Your task to perform on an android device: change the clock display to analog Image 0: 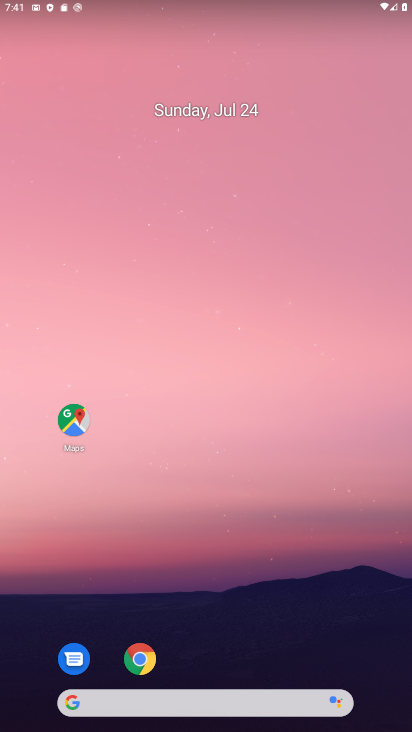
Step 0: drag from (311, 719) to (253, 177)
Your task to perform on an android device: change the clock display to analog Image 1: 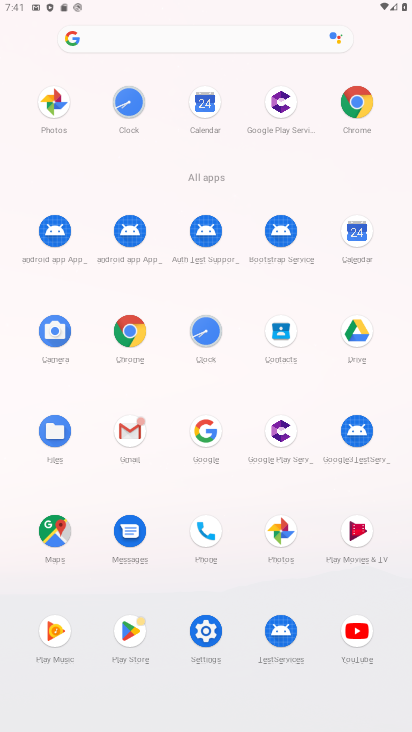
Step 1: click (194, 323)
Your task to perform on an android device: change the clock display to analog Image 2: 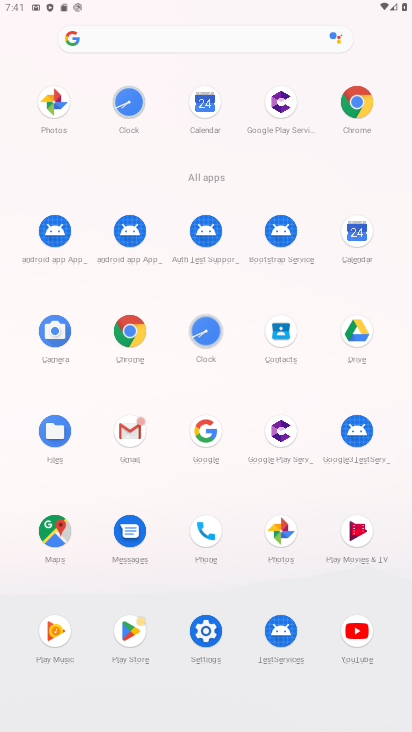
Step 2: click (193, 327)
Your task to perform on an android device: change the clock display to analog Image 3: 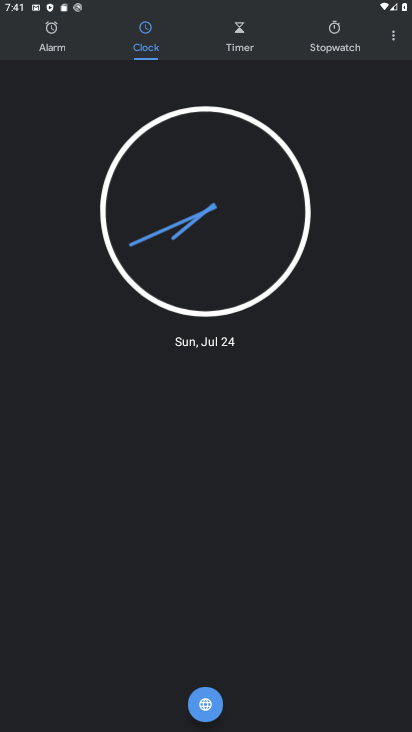
Step 3: click (390, 35)
Your task to perform on an android device: change the clock display to analog Image 4: 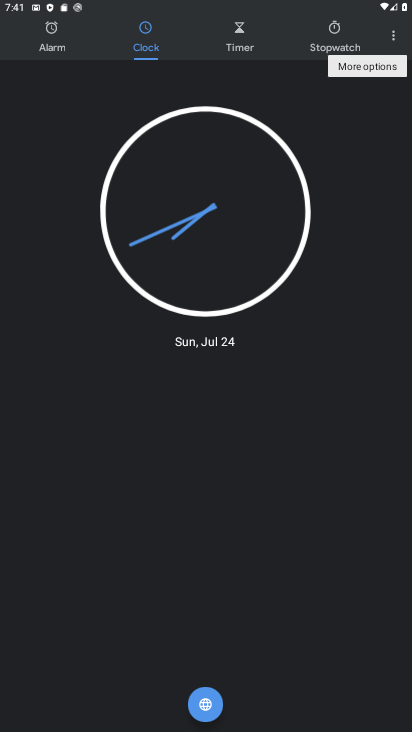
Step 4: click (390, 37)
Your task to perform on an android device: change the clock display to analog Image 5: 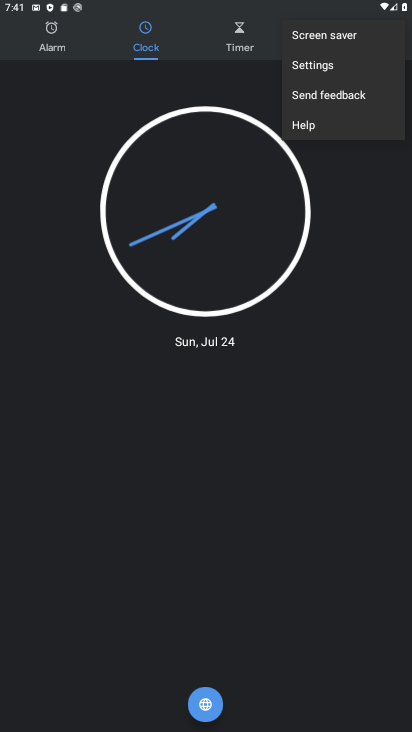
Step 5: click (313, 64)
Your task to perform on an android device: change the clock display to analog Image 6: 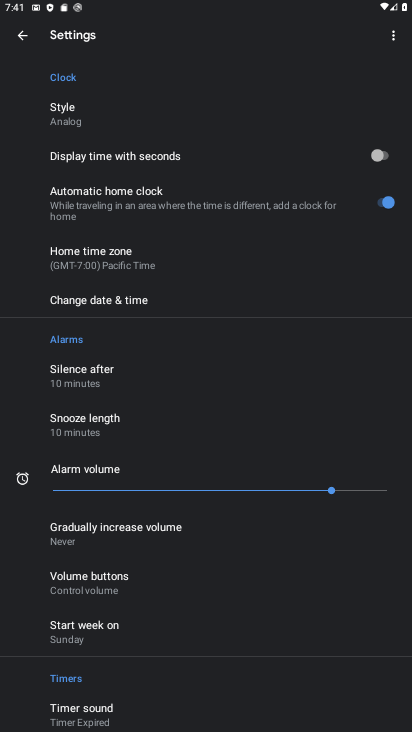
Step 6: task complete